Your task to perform on an android device: Search for the new Apple Watch on Best Buy Image 0: 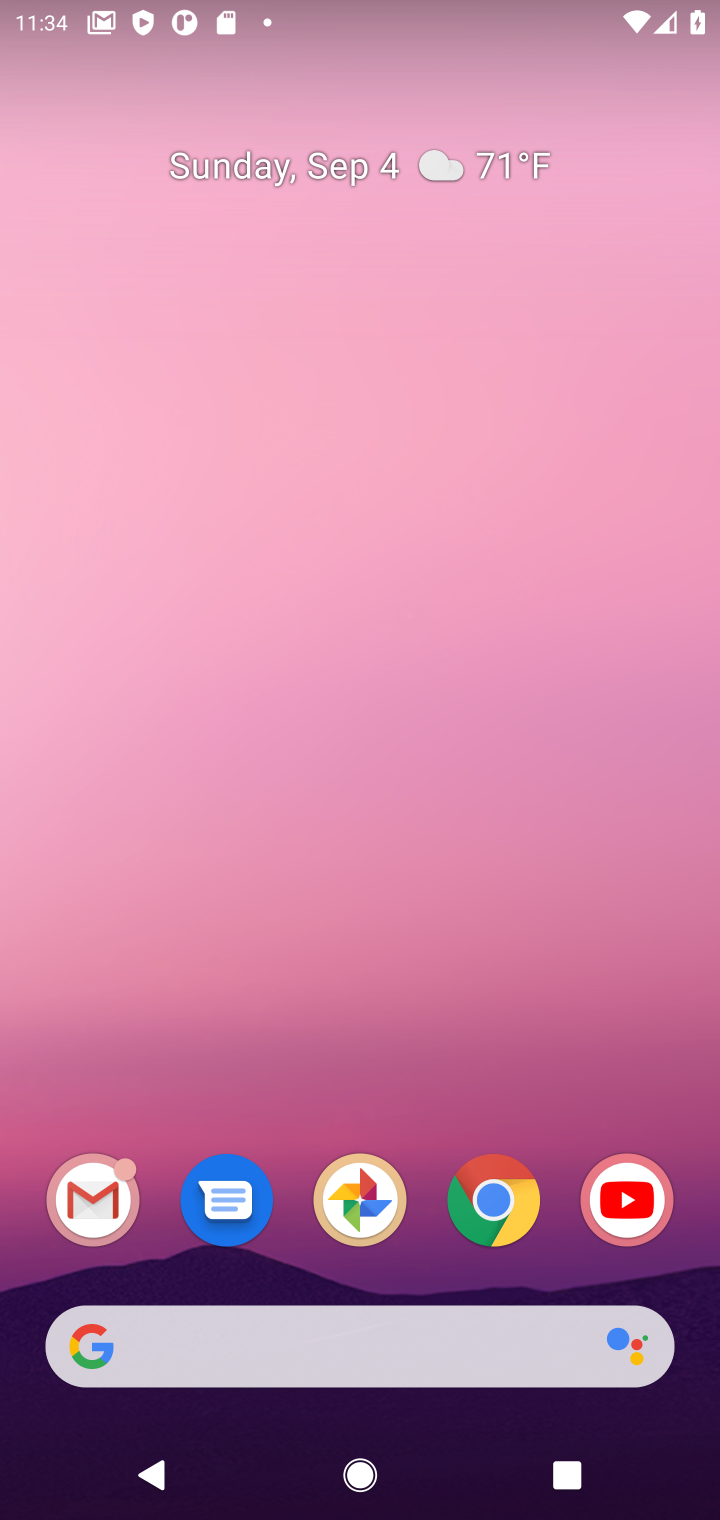
Step 0: click (512, 1195)
Your task to perform on an android device: Search for the new Apple Watch on Best Buy Image 1: 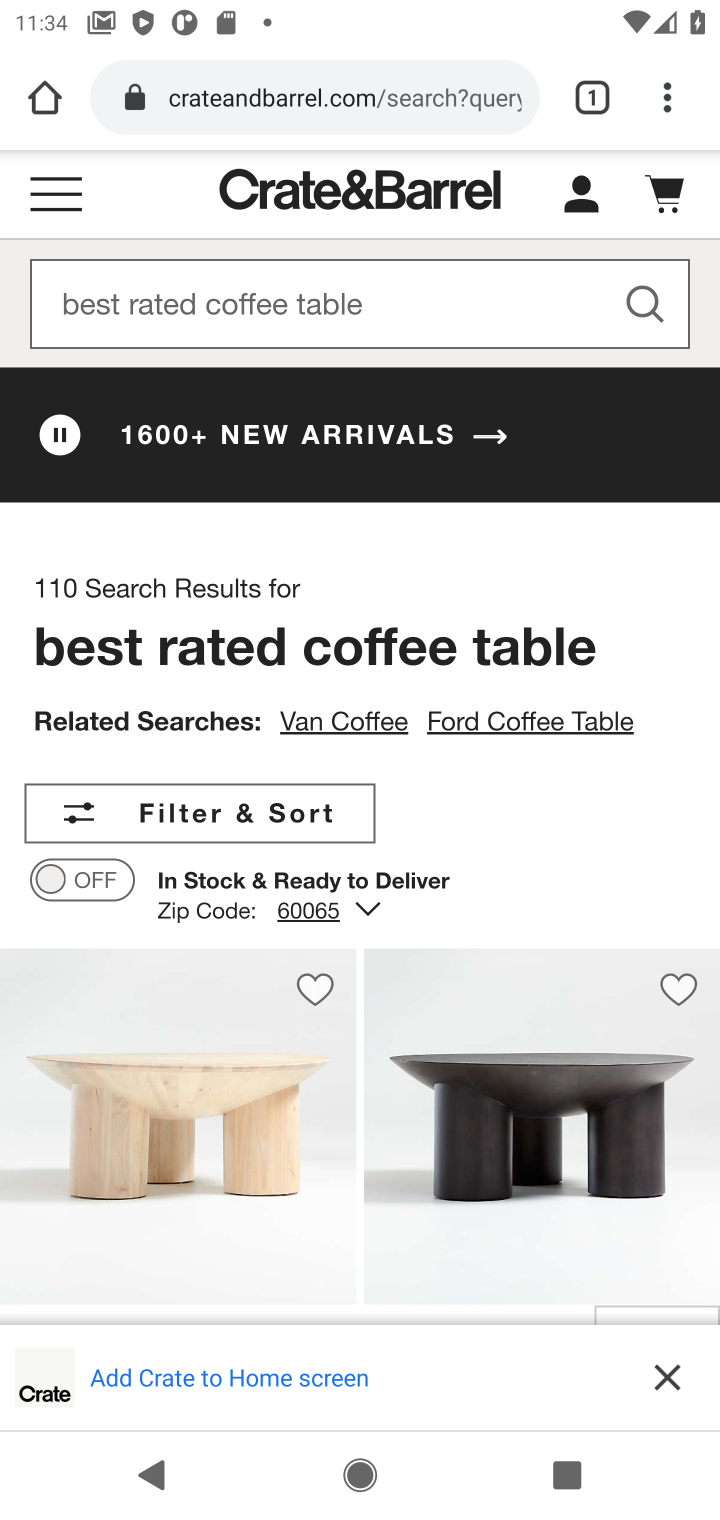
Step 1: click (396, 91)
Your task to perform on an android device: Search for the new Apple Watch on Best Buy Image 2: 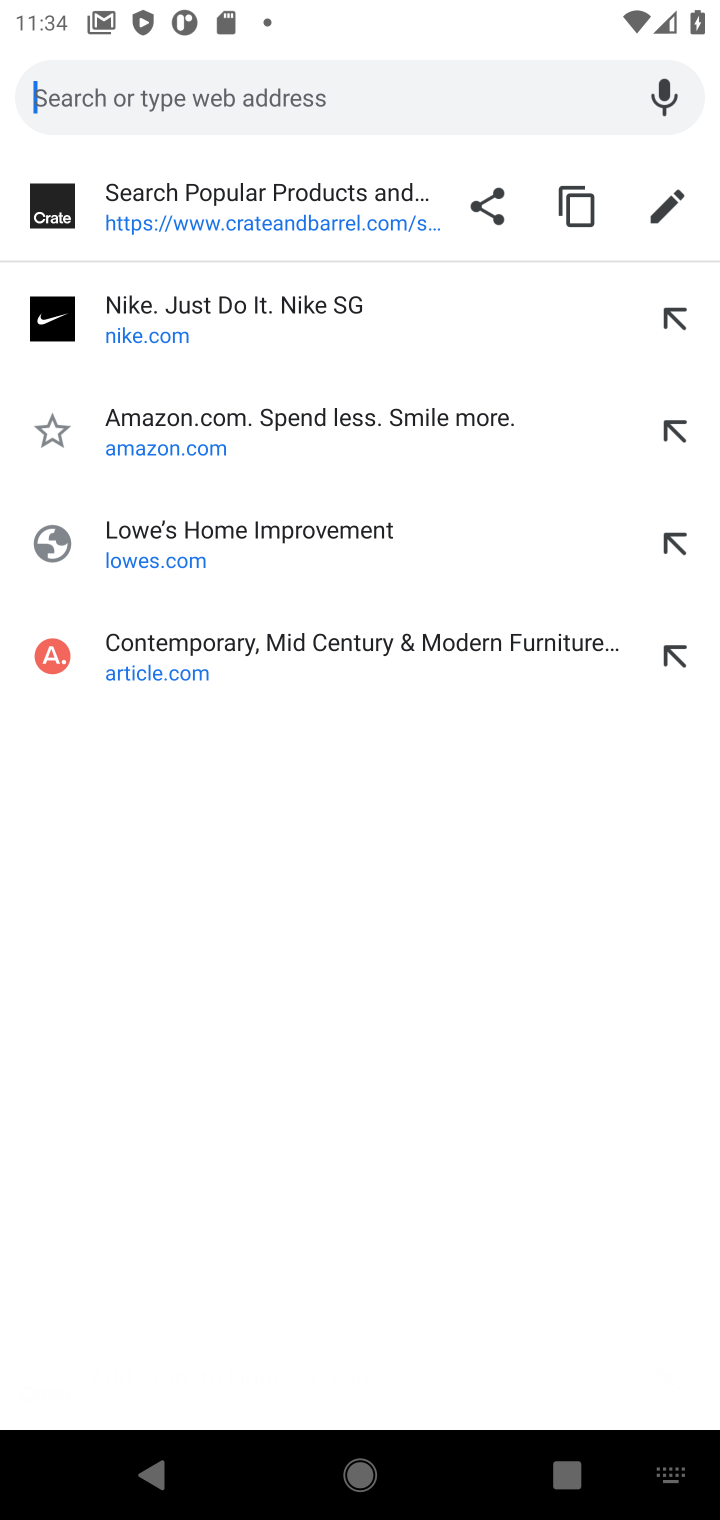
Step 2: type "best buy"
Your task to perform on an android device: Search for the new Apple Watch on Best Buy Image 3: 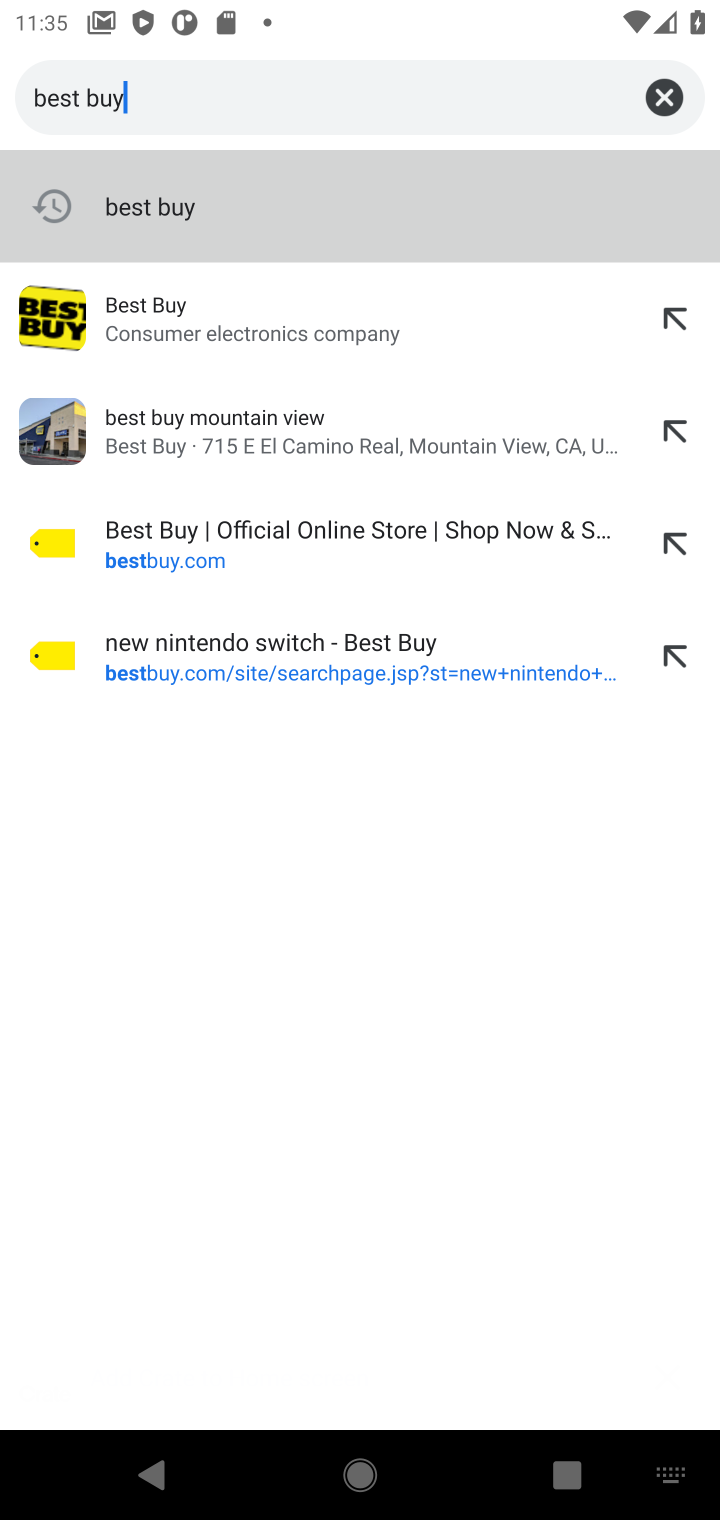
Step 3: click (93, 310)
Your task to perform on an android device: Search for the new Apple Watch on Best Buy Image 4: 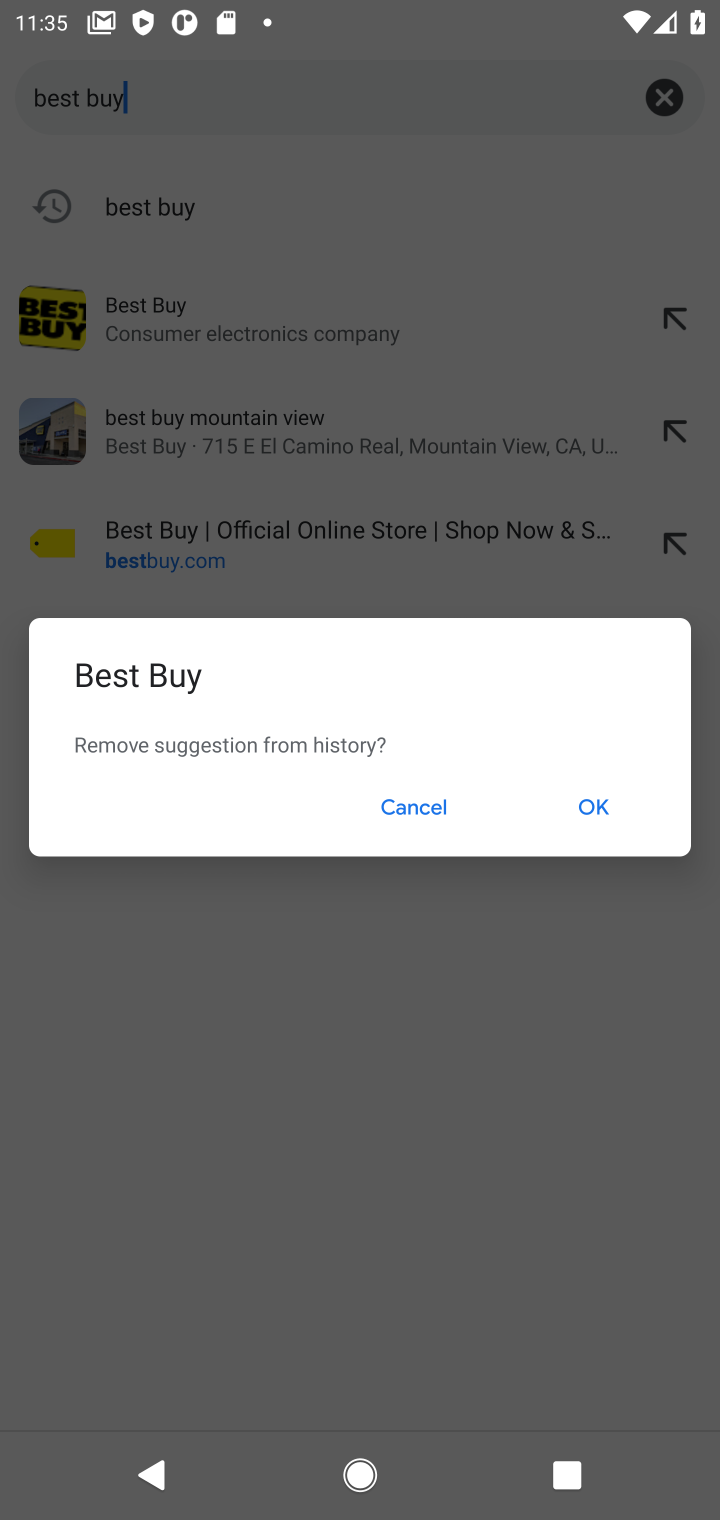
Step 4: click (423, 800)
Your task to perform on an android device: Search for the new Apple Watch on Best Buy Image 5: 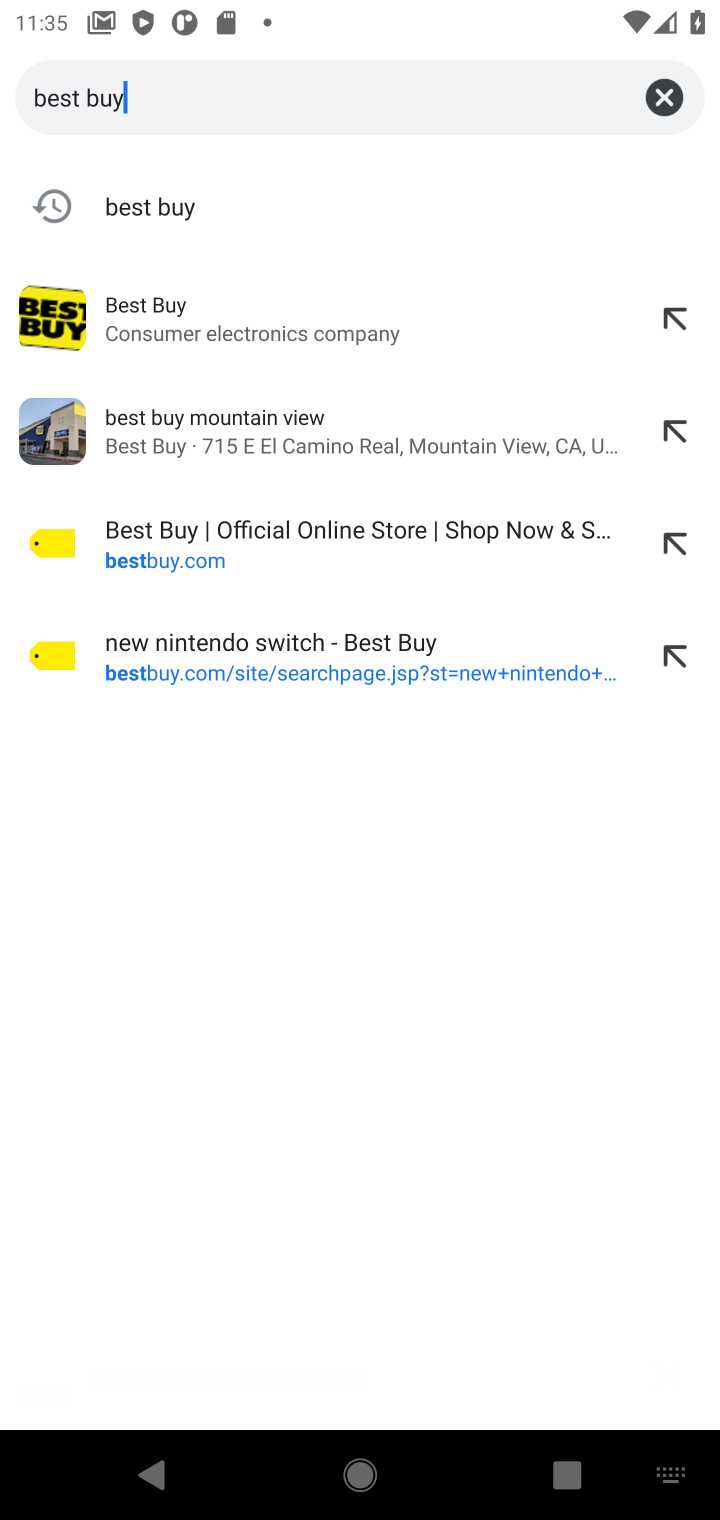
Step 5: click (106, 318)
Your task to perform on an android device: Search for the new Apple Watch on Best Buy Image 6: 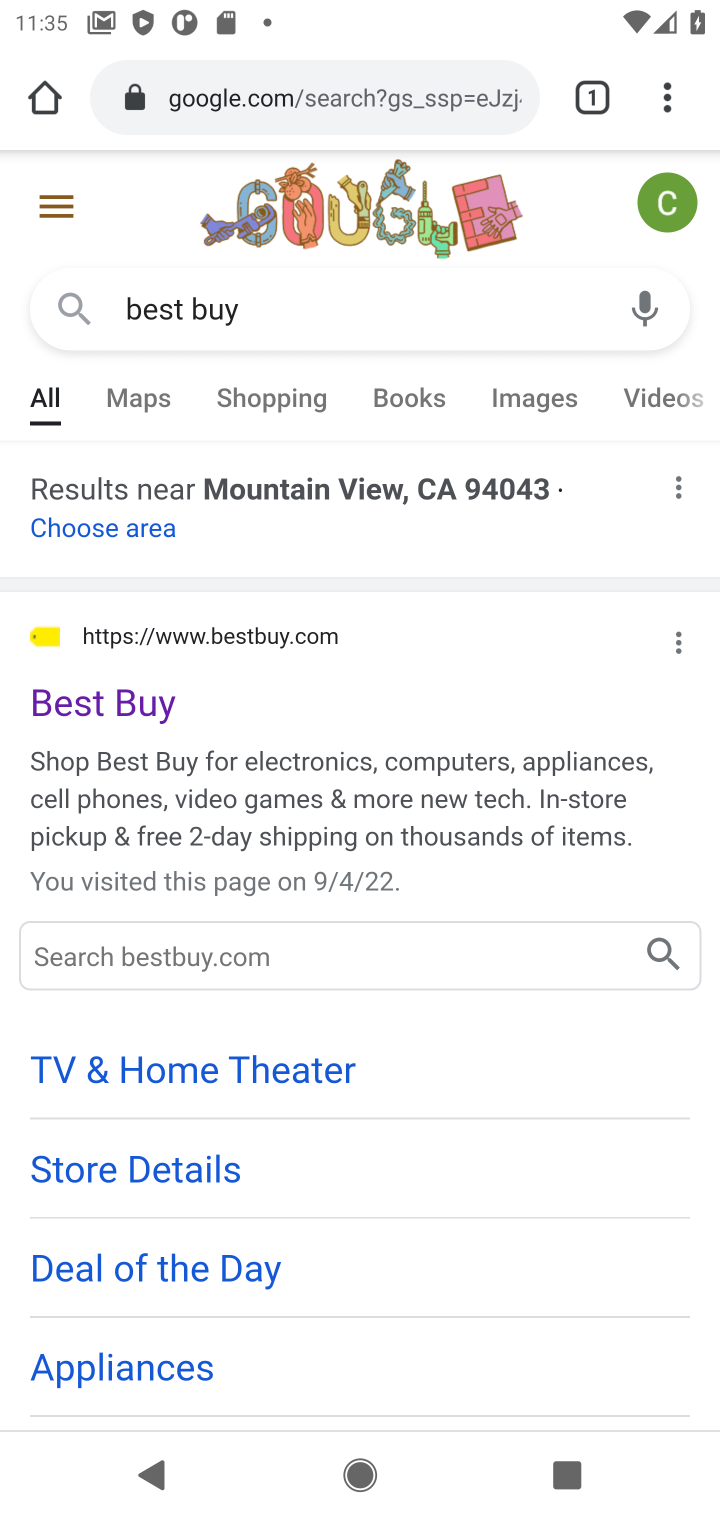
Step 6: click (152, 714)
Your task to perform on an android device: Search for the new Apple Watch on Best Buy Image 7: 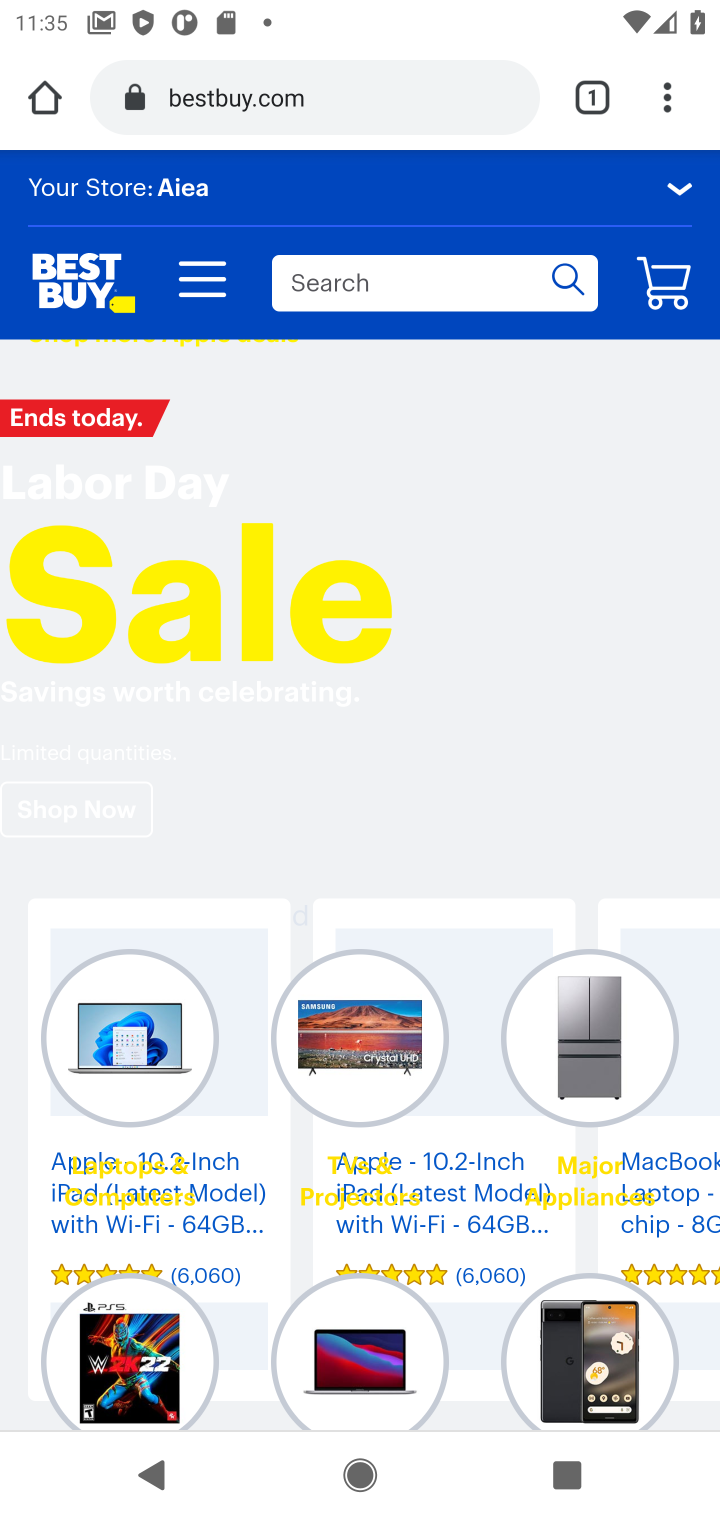
Step 7: click (488, 285)
Your task to perform on an android device: Search for the new Apple Watch on Best Buy Image 8: 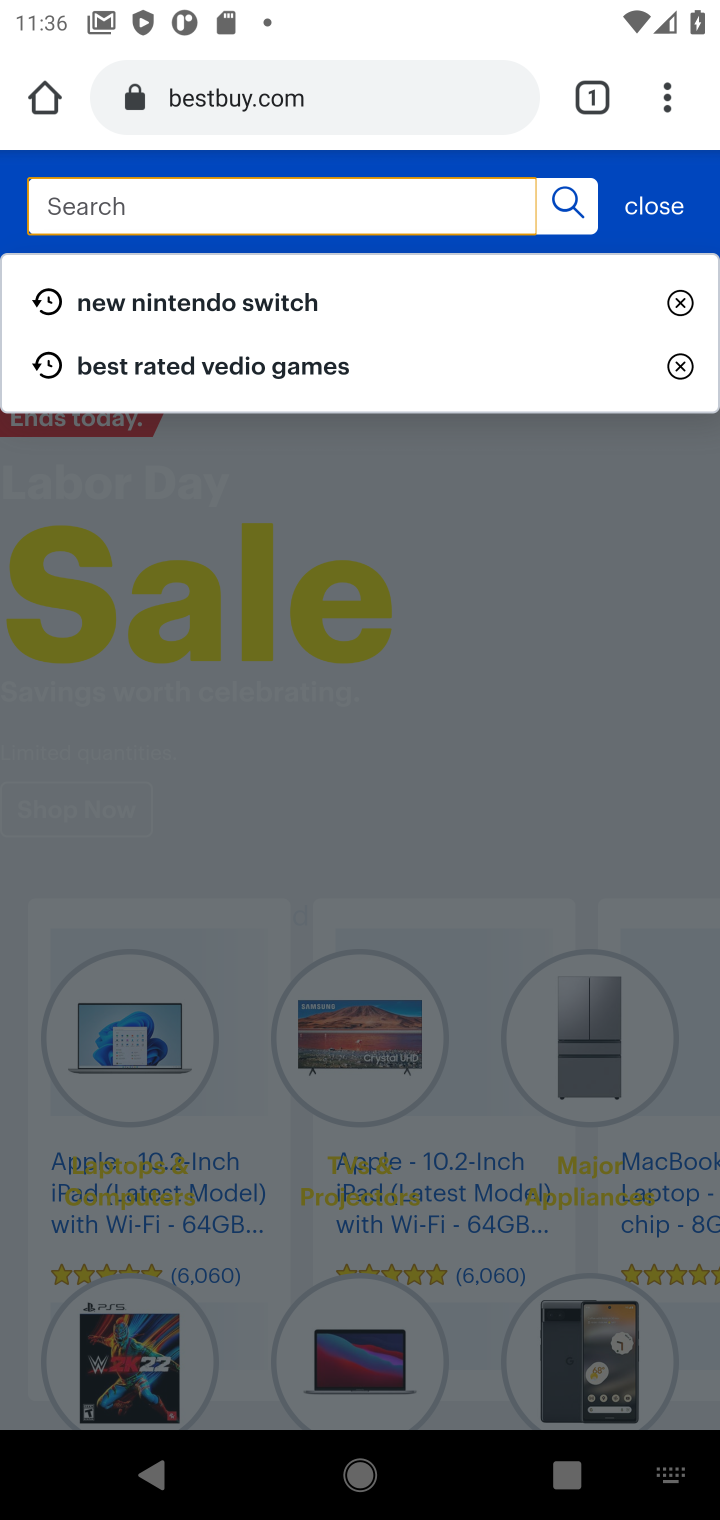
Step 8: type "new apple watch"
Your task to perform on an android device: Search for the new Apple Watch on Best Buy Image 9: 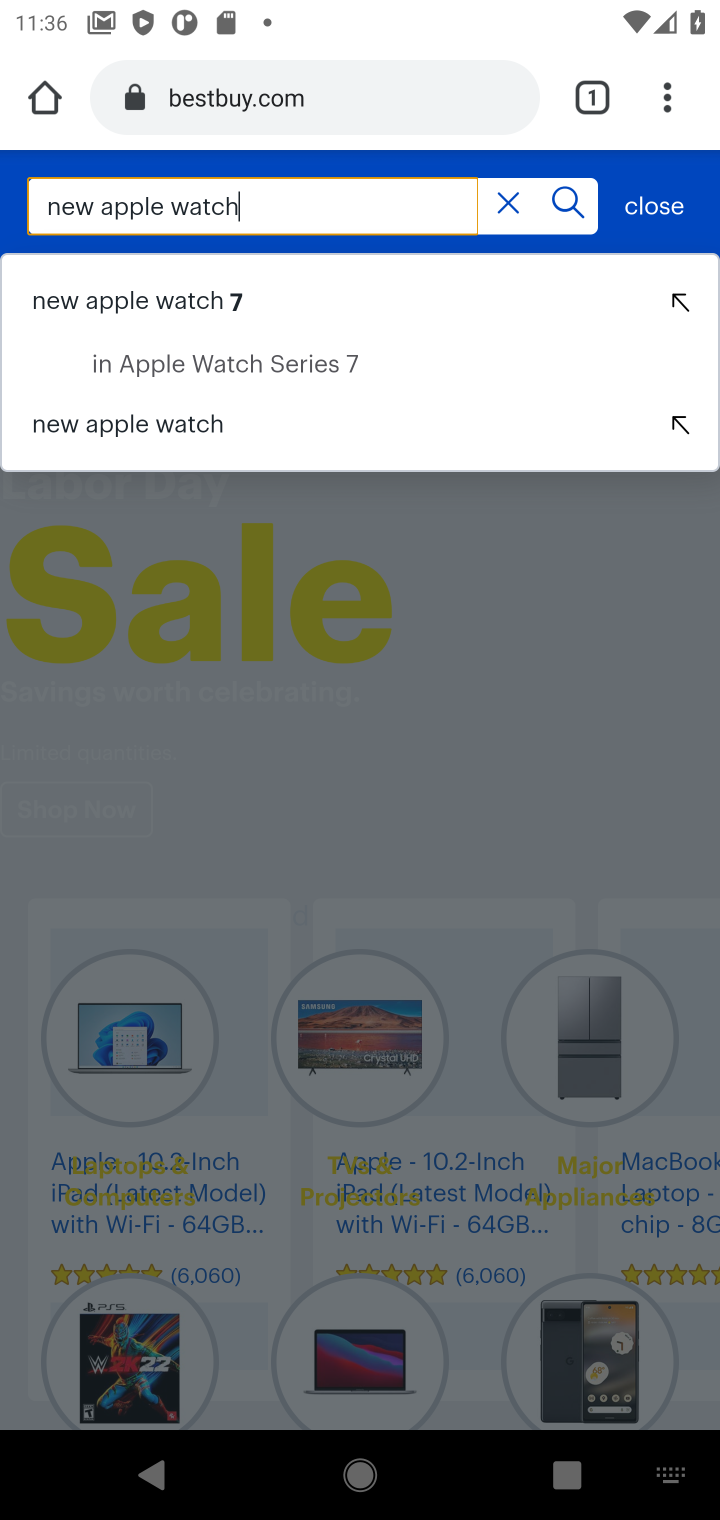
Step 9: click (81, 427)
Your task to perform on an android device: Search for the new Apple Watch on Best Buy Image 10: 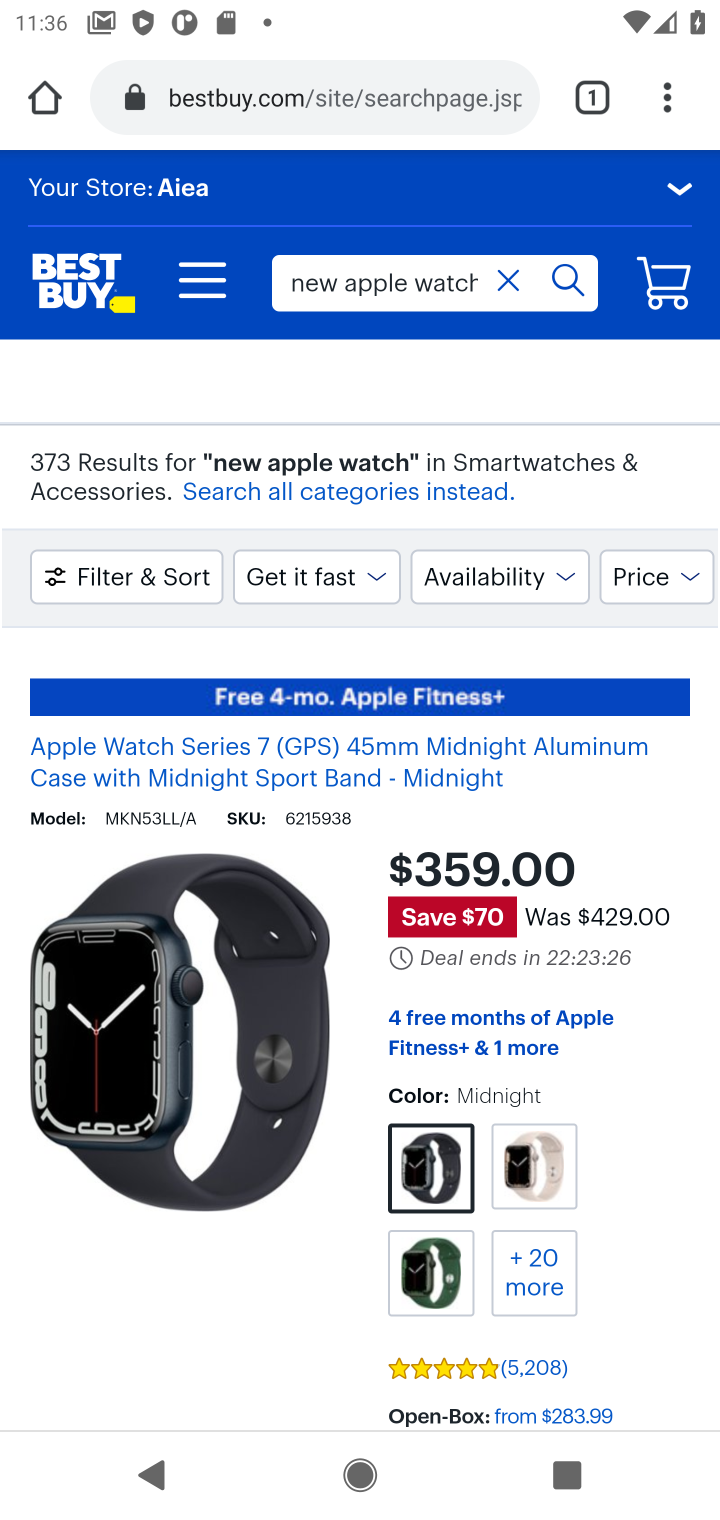
Step 10: task complete